Your task to perform on an android device: Open eBay Image 0: 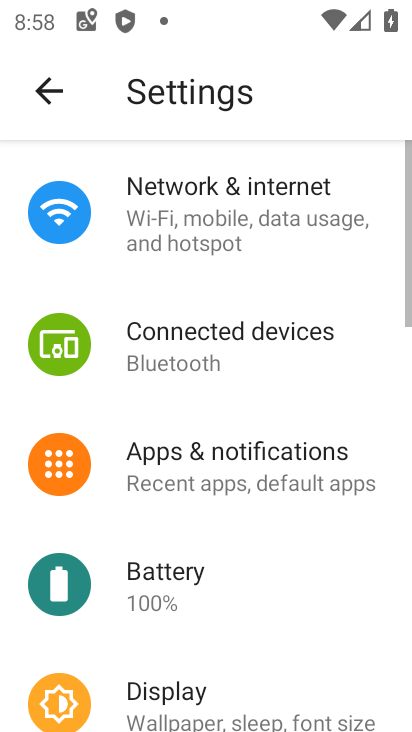
Step 0: press home button
Your task to perform on an android device: Open eBay Image 1: 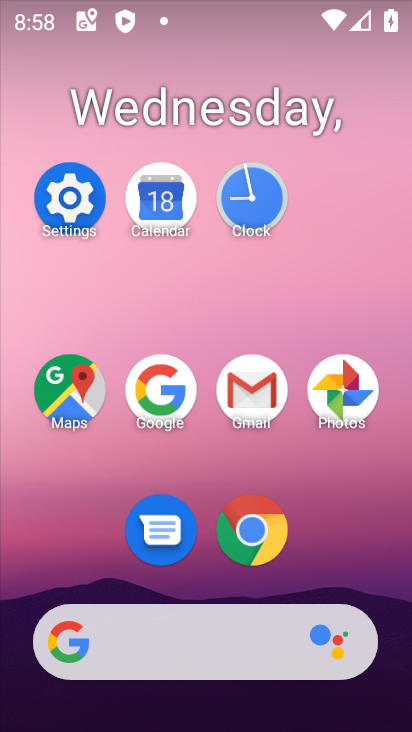
Step 1: click (252, 523)
Your task to perform on an android device: Open eBay Image 2: 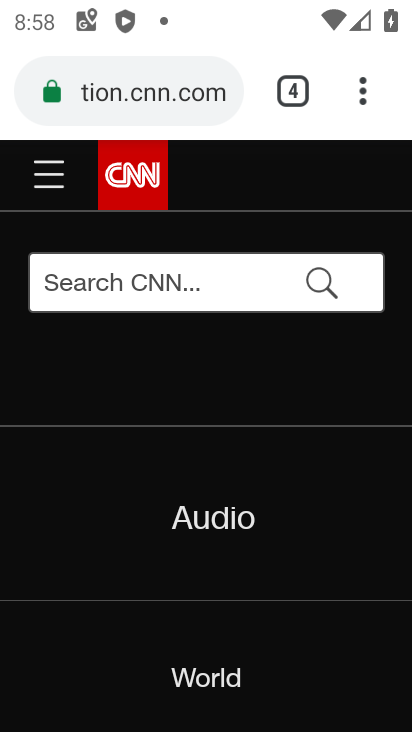
Step 2: click (282, 96)
Your task to perform on an android device: Open eBay Image 3: 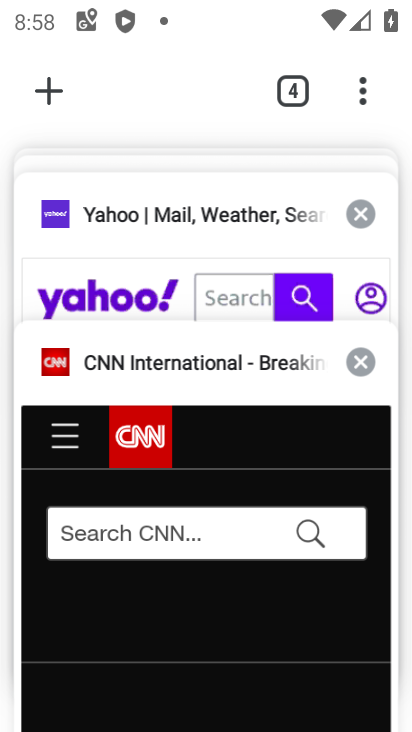
Step 3: drag from (163, 211) to (198, 556)
Your task to perform on an android device: Open eBay Image 4: 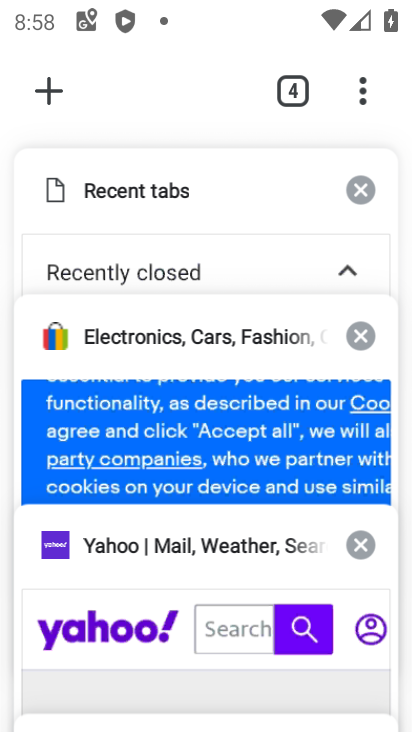
Step 4: click (186, 345)
Your task to perform on an android device: Open eBay Image 5: 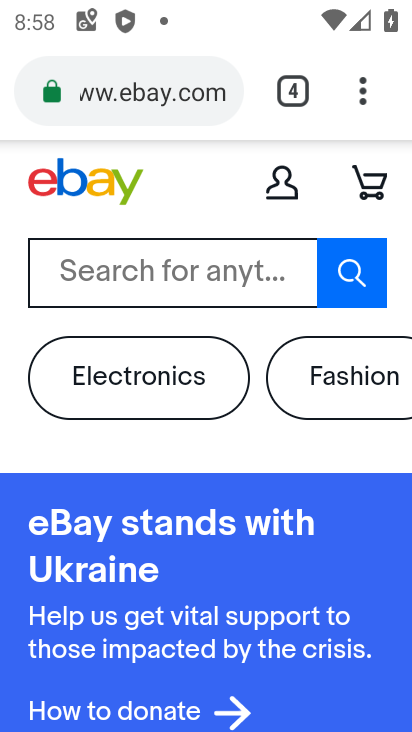
Step 5: task complete